Your task to perform on an android device: Open my contact list Image 0: 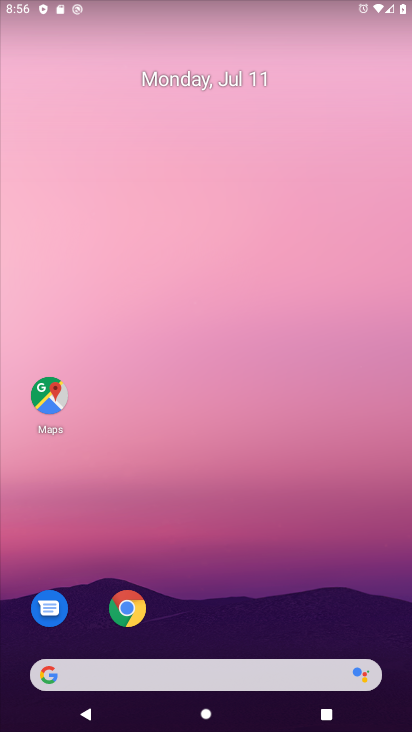
Step 0: drag from (220, 613) to (215, 110)
Your task to perform on an android device: Open my contact list Image 1: 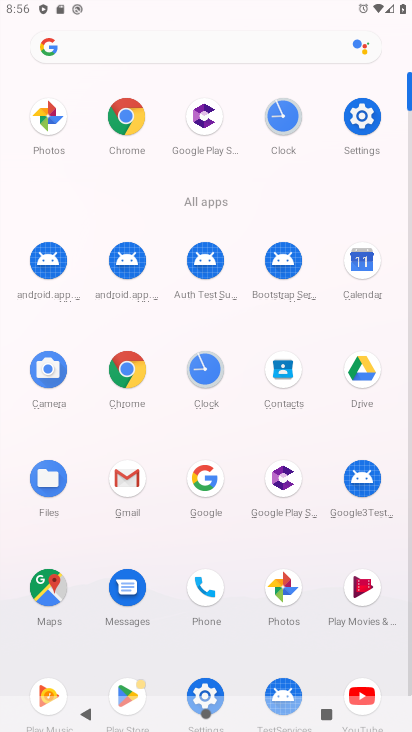
Step 1: click (294, 367)
Your task to perform on an android device: Open my contact list Image 2: 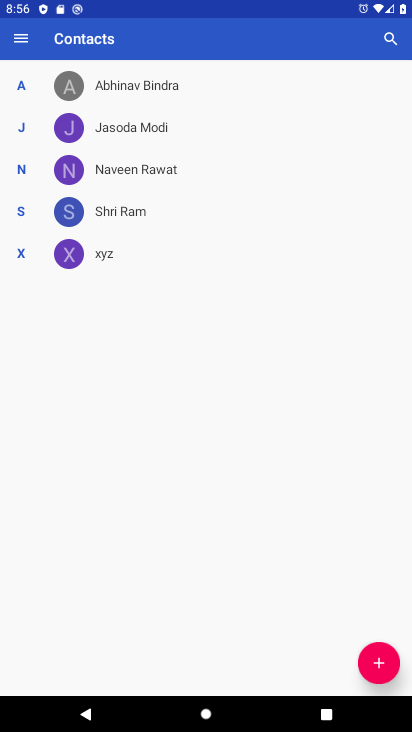
Step 2: task complete